Your task to perform on an android device: Open Reddit.com Image 0: 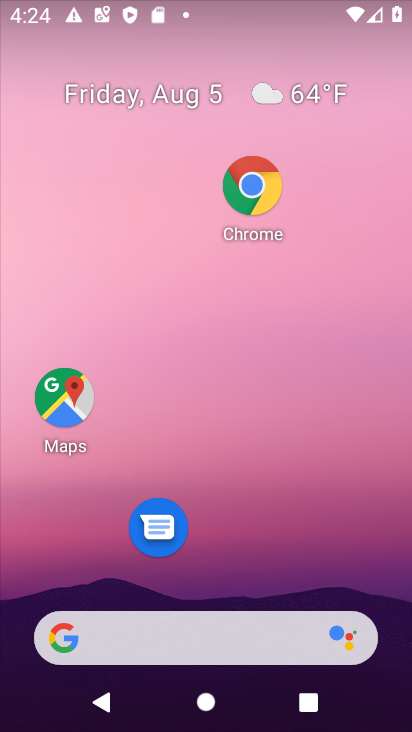
Step 0: click (255, 189)
Your task to perform on an android device: Open Reddit.com Image 1: 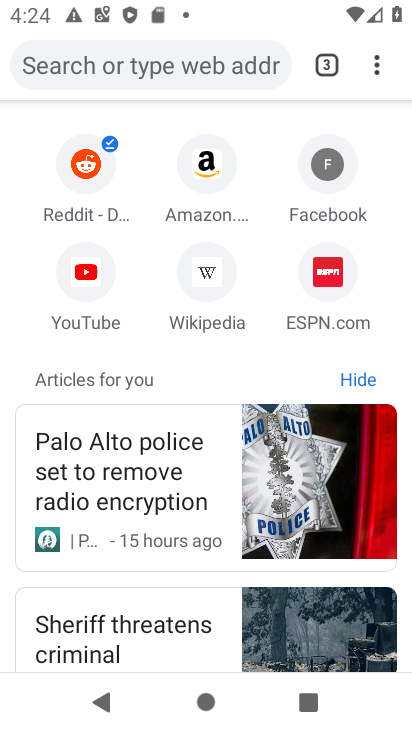
Step 1: click (83, 164)
Your task to perform on an android device: Open Reddit.com Image 2: 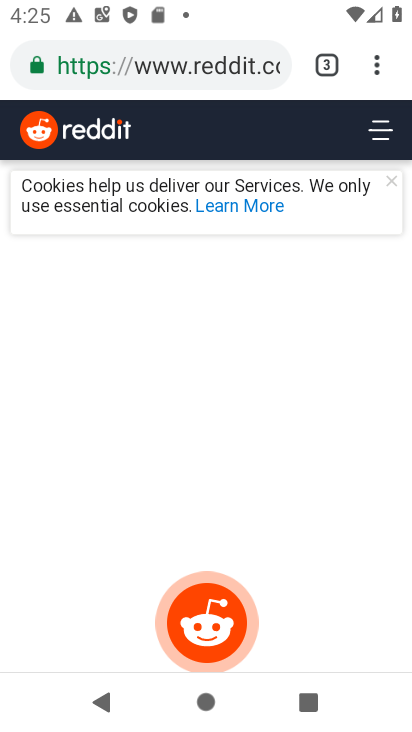
Step 2: task complete